Your task to perform on an android device: toggle sleep mode Image 0: 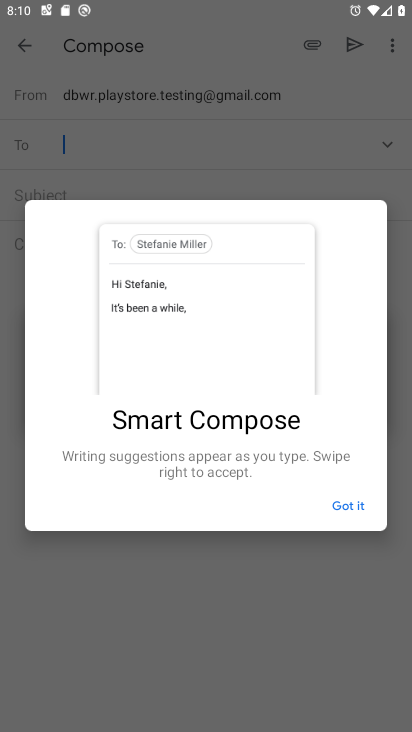
Step 0: press home button
Your task to perform on an android device: toggle sleep mode Image 1: 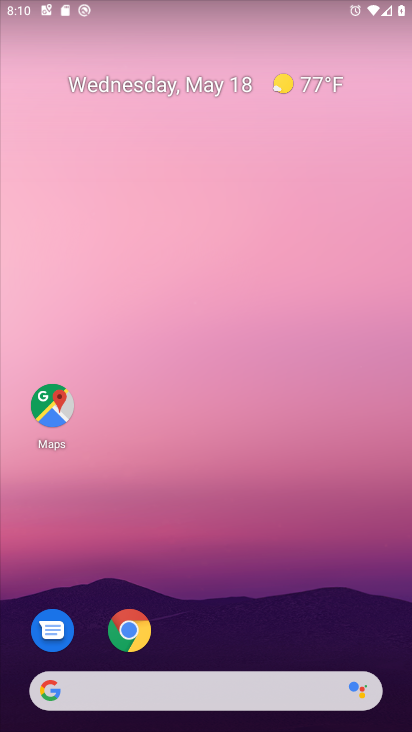
Step 1: drag from (288, 608) to (336, 185)
Your task to perform on an android device: toggle sleep mode Image 2: 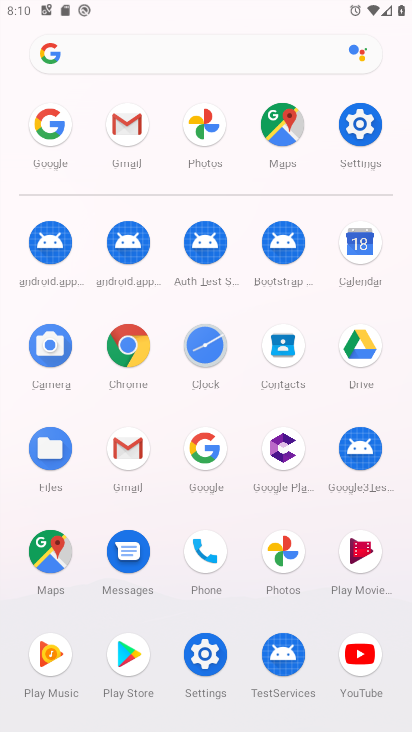
Step 2: click (355, 115)
Your task to perform on an android device: toggle sleep mode Image 3: 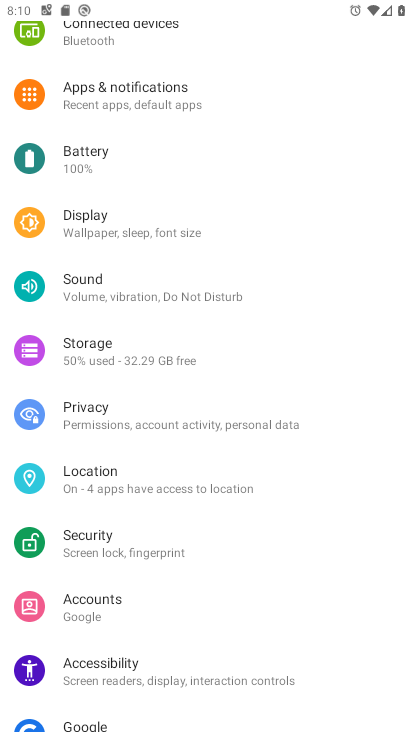
Step 3: click (133, 232)
Your task to perform on an android device: toggle sleep mode Image 4: 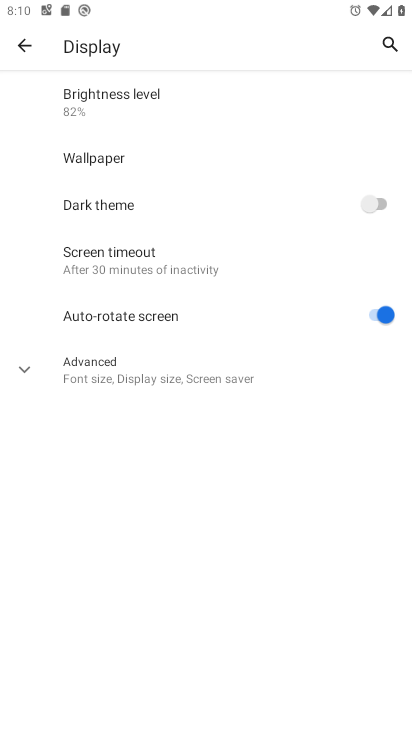
Step 4: click (26, 373)
Your task to perform on an android device: toggle sleep mode Image 5: 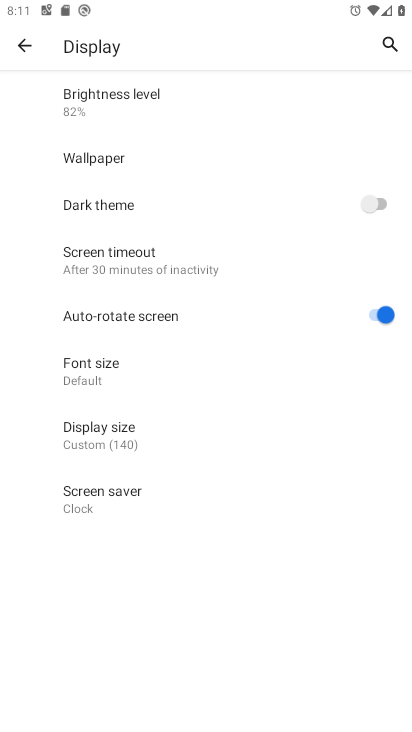
Step 5: task complete